Your task to perform on an android device: all mails in gmail Image 0: 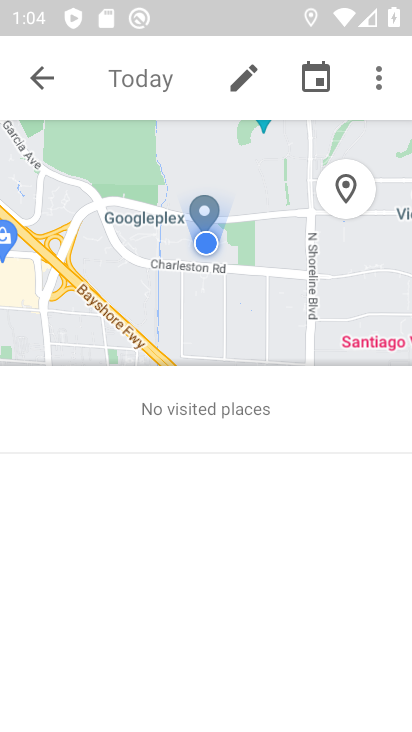
Step 0: press home button
Your task to perform on an android device: all mails in gmail Image 1: 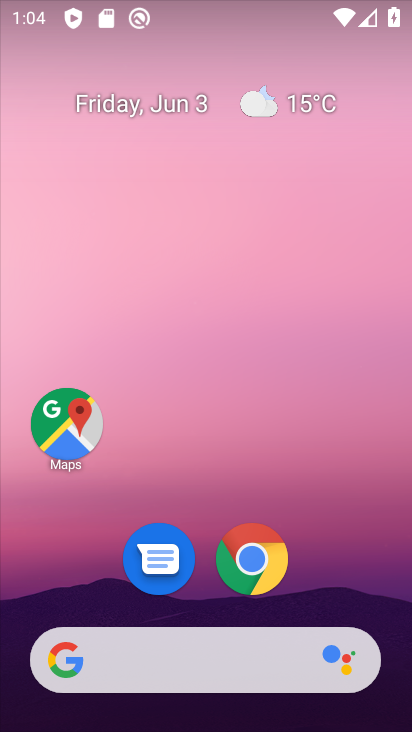
Step 1: drag from (142, 623) to (252, 31)
Your task to perform on an android device: all mails in gmail Image 2: 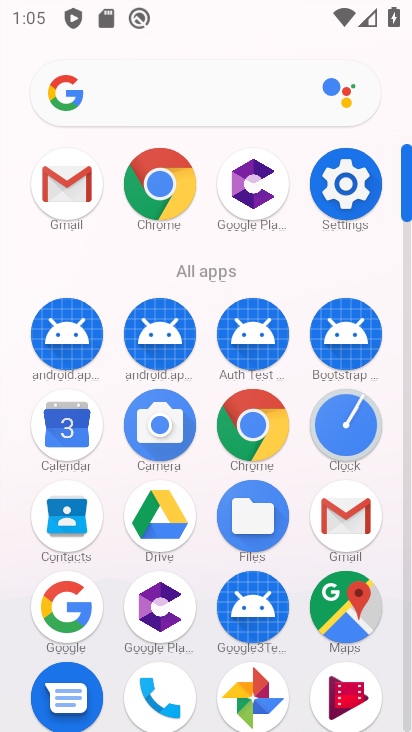
Step 2: click (350, 514)
Your task to perform on an android device: all mails in gmail Image 3: 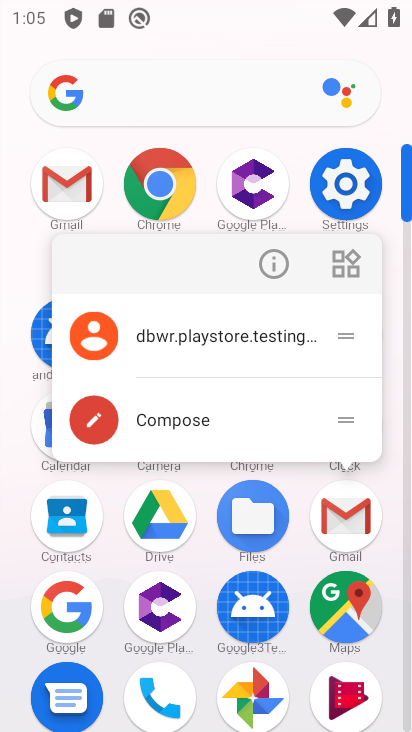
Step 3: click (350, 514)
Your task to perform on an android device: all mails in gmail Image 4: 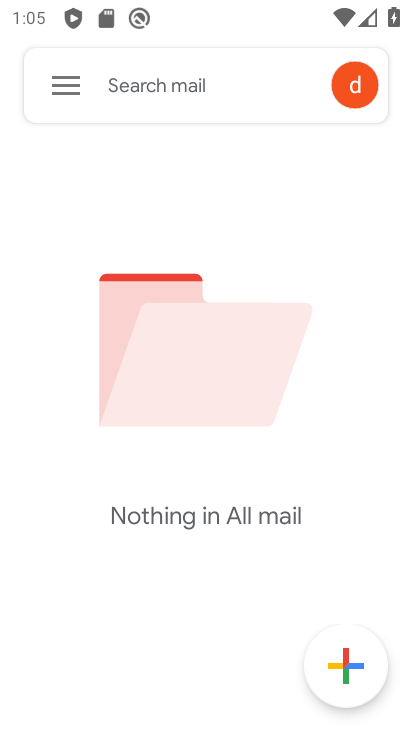
Step 4: click (76, 99)
Your task to perform on an android device: all mails in gmail Image 5: 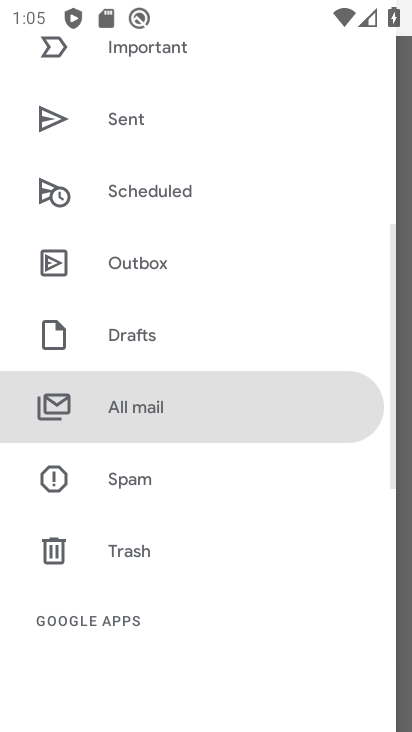
Step 5: click (188, 419)
Your task to perform on an android device: all mails in gmail Image 6: 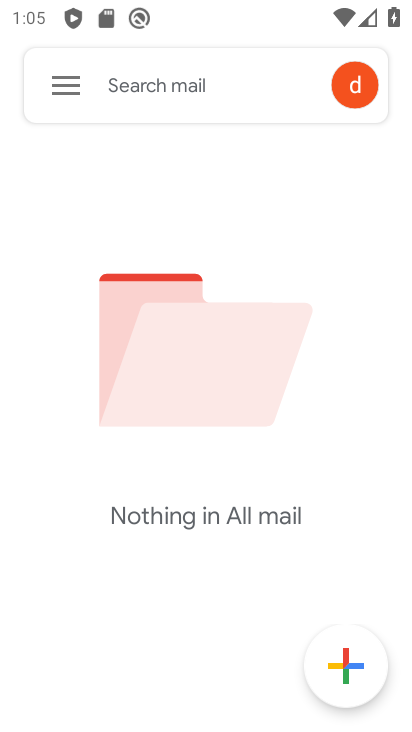
Step 6: task complete